Your task to perform on an android device: toggle airplane mode Image 0: 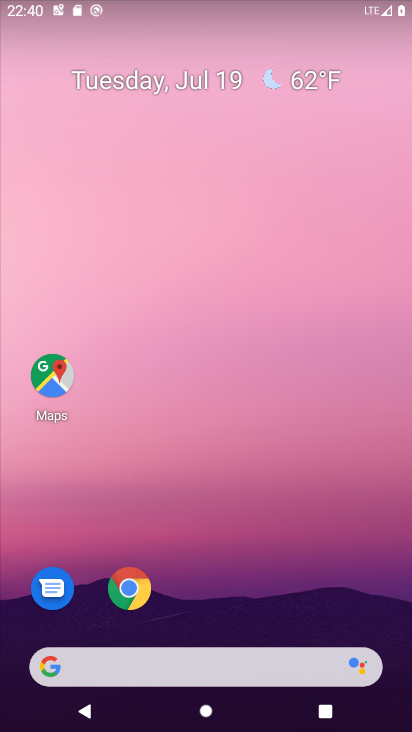
Step 0: drag from (200, 595) to (220, 119)
Your task to perform on an android device: toggle airplane mode Image 1: 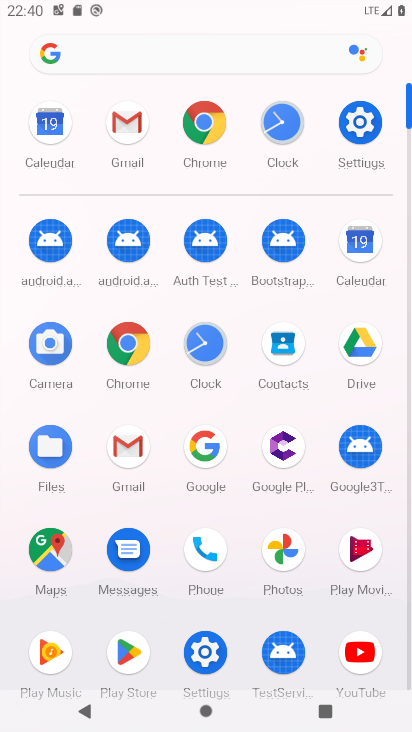
Step 1: click (359, 117)
Your task to perform on an android device: toggle airplane mode Image 2: 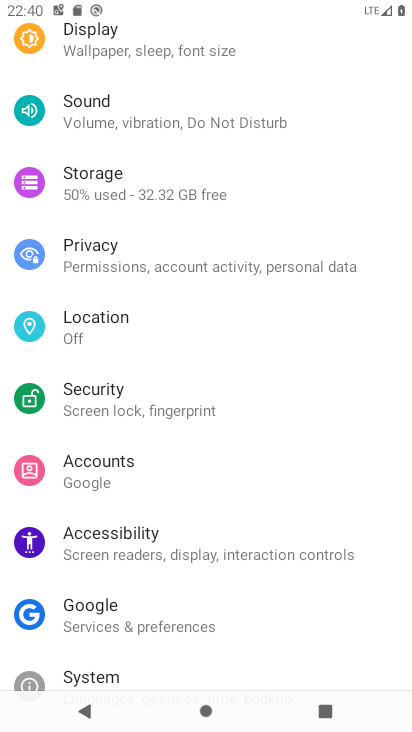
Step 2: drag from (144, 119) to (133, 453)
Your task to perform on an android device: toggle airplane mode Image 3: 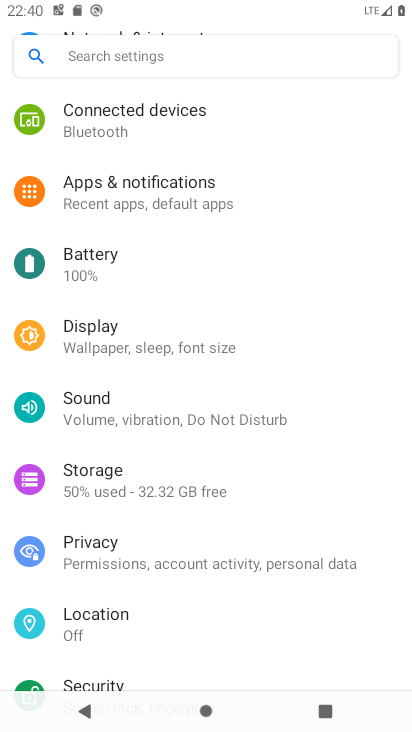
Step 3: drag from (138, 309) to (82, 708)
Your task to perform on an android device: toggle airplane mode Image 4: 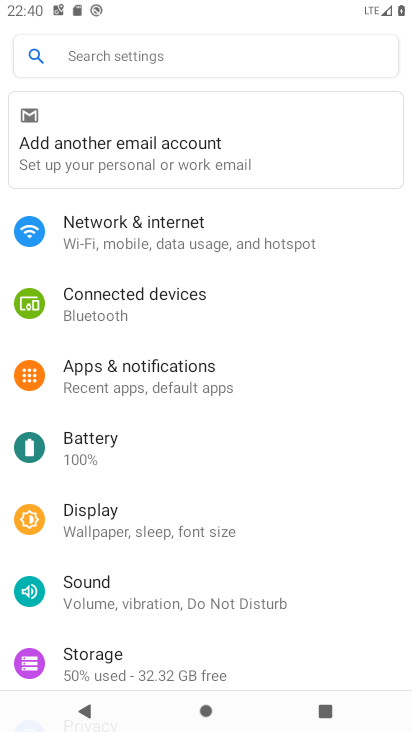
Step 4: click (171, 242)
Your task to perform on an android device: toggle airplane mode Image 5: 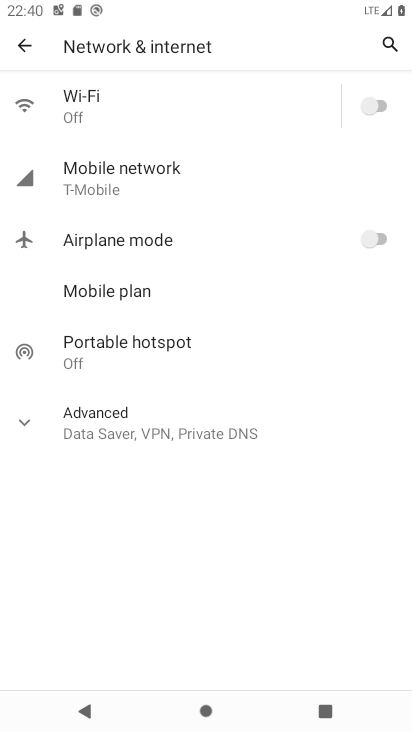
Step 5: click (389, 243)
Your task to perform on an android device: toggle airplane mode Image 6: 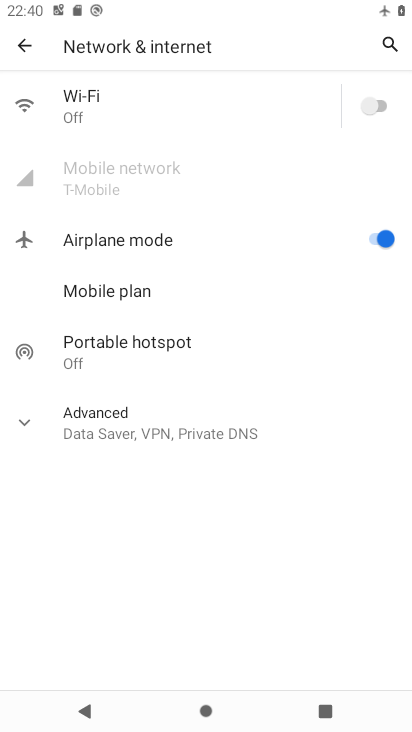
Step 6: task complete